Your task to perform on an android device: Clear the shopping cart on costco.com. Image 0: 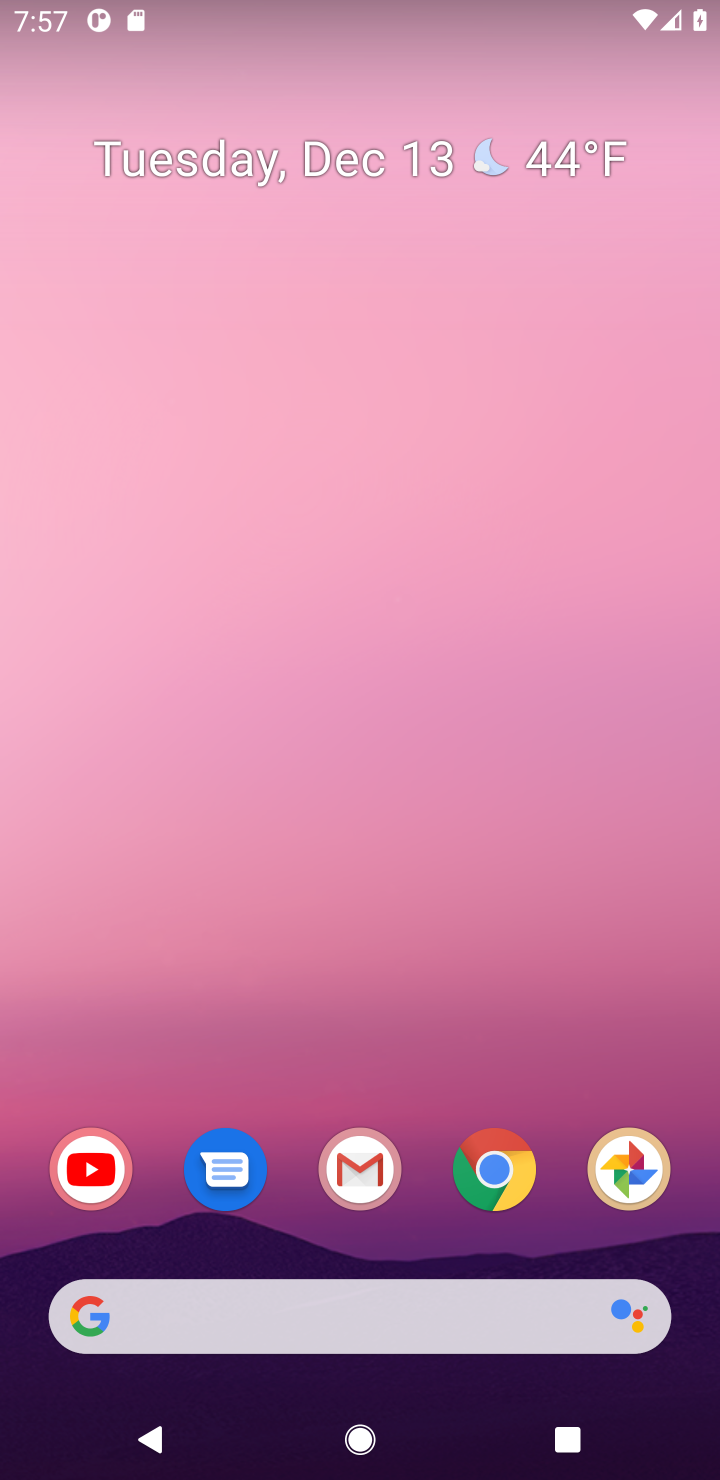
Step 0: click (457, 1148)
Your task to perform on an android device: Clear the shopping cart on costco.com. Image 1: 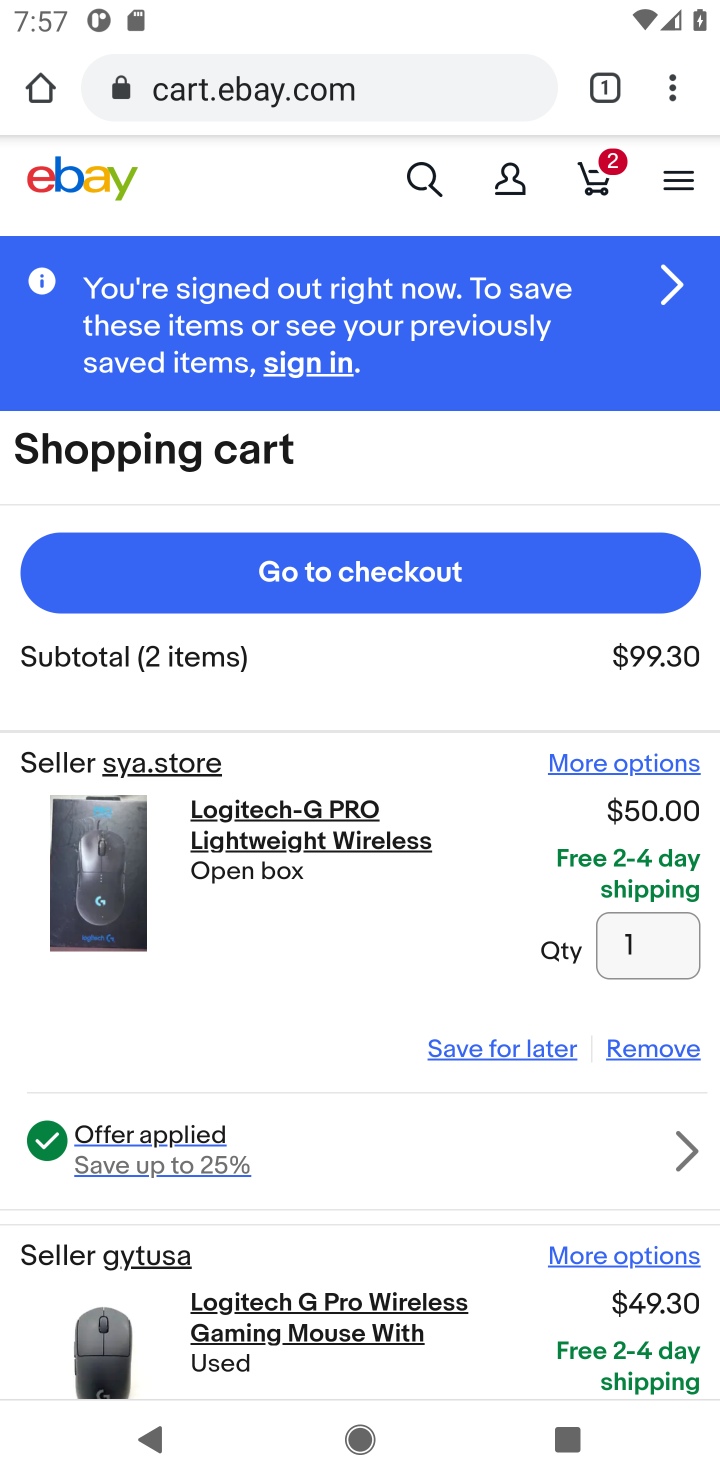
Step 1: click (328, 105)
Your task to perform on an android device: Clear the shopping cart on costco.com. Image 2: 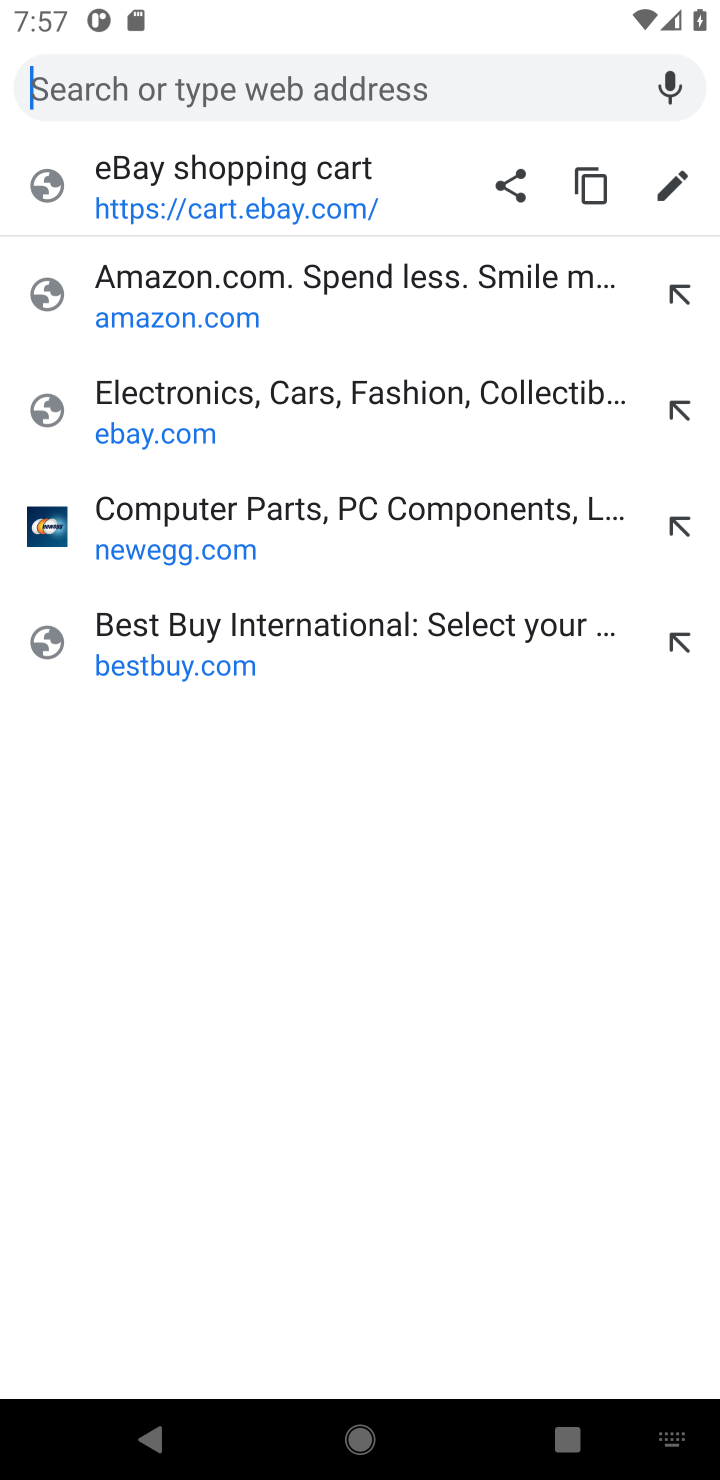
Step 2: type "costco"
Your task to perform on an android device: Clear the shopping cart on costco.com. Image 3: 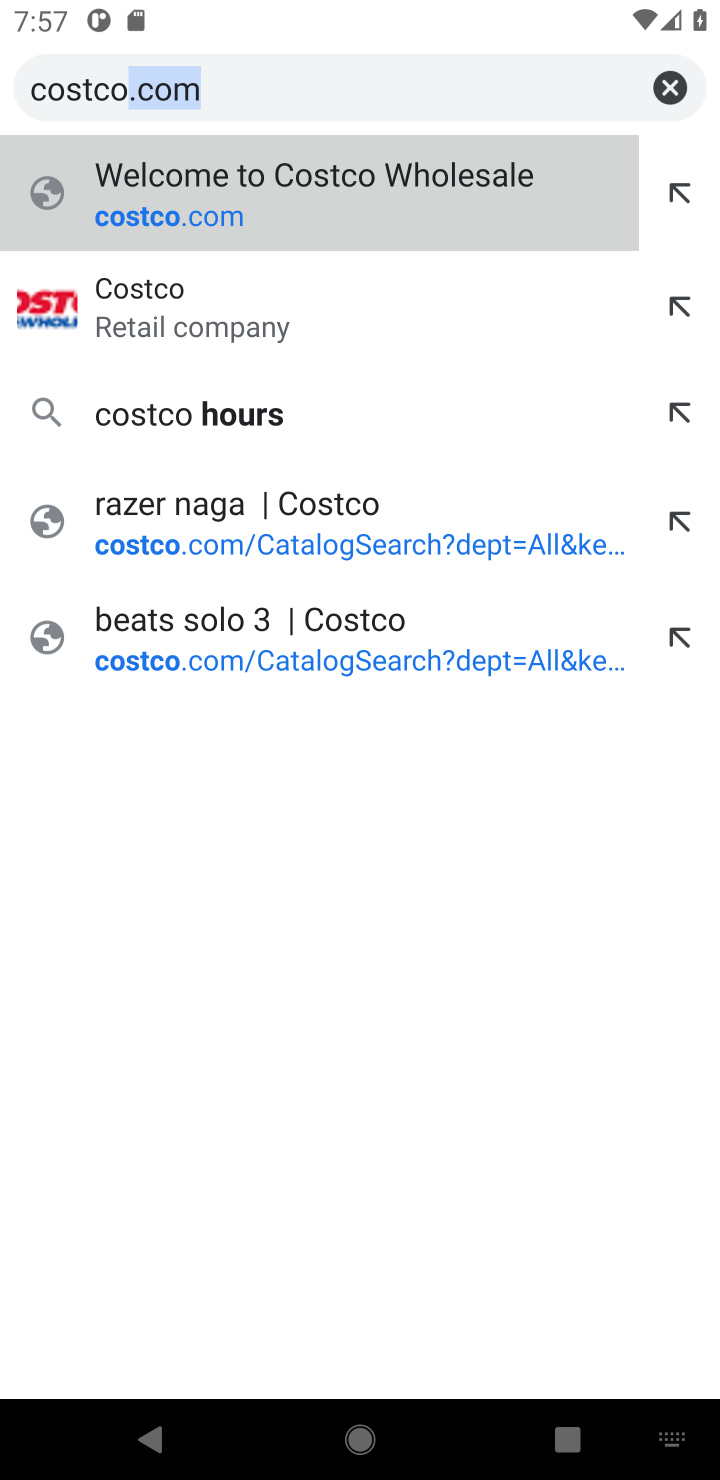
Step 3: click (353, 217)
Your task to perform on an android device: Clear the shopping cart on costco.com. Image 4: 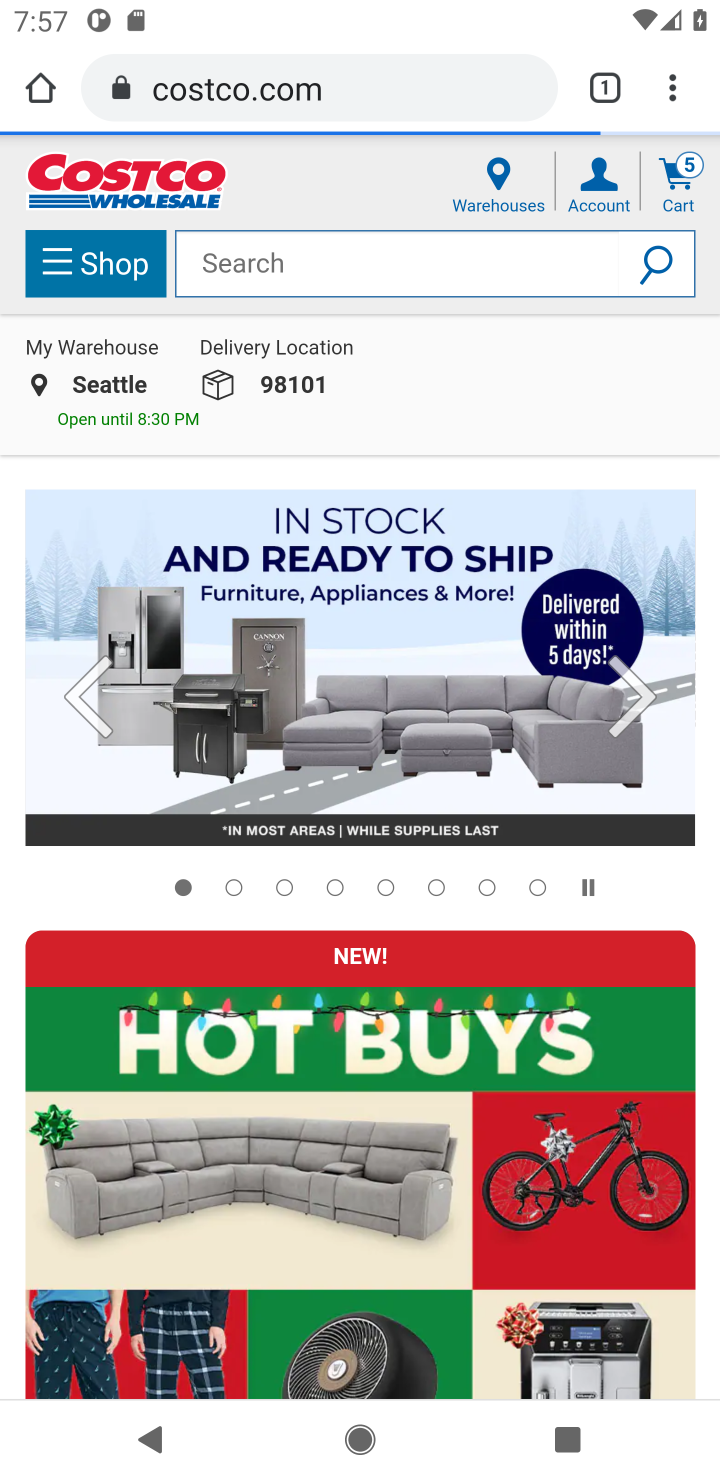
Step 4: click (321, 241)
Your task to perform on an android device: Clear the shopping cart on costco.com. Image 5: 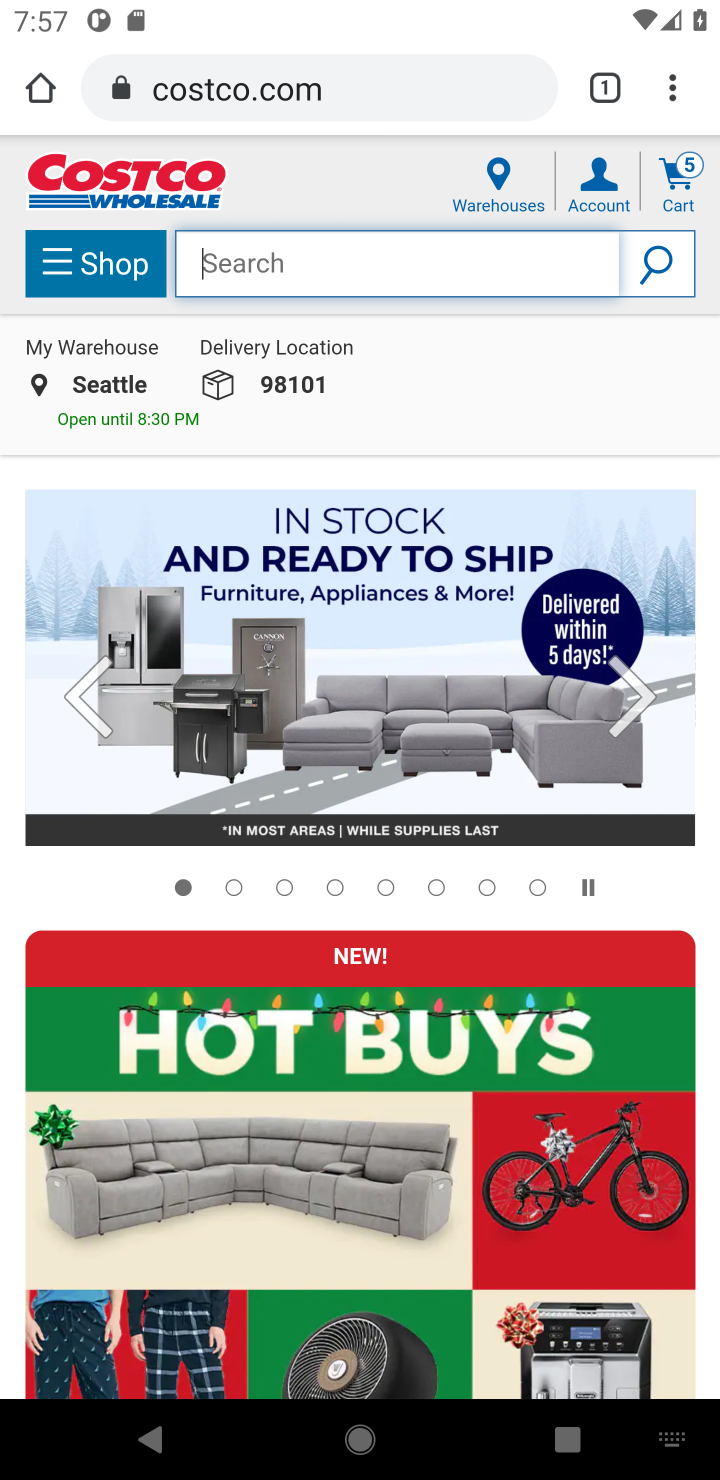
Step 5: click (665, 201)
Your task to perform on an android device: Clear the shopping cart on costco.com. Image 6: 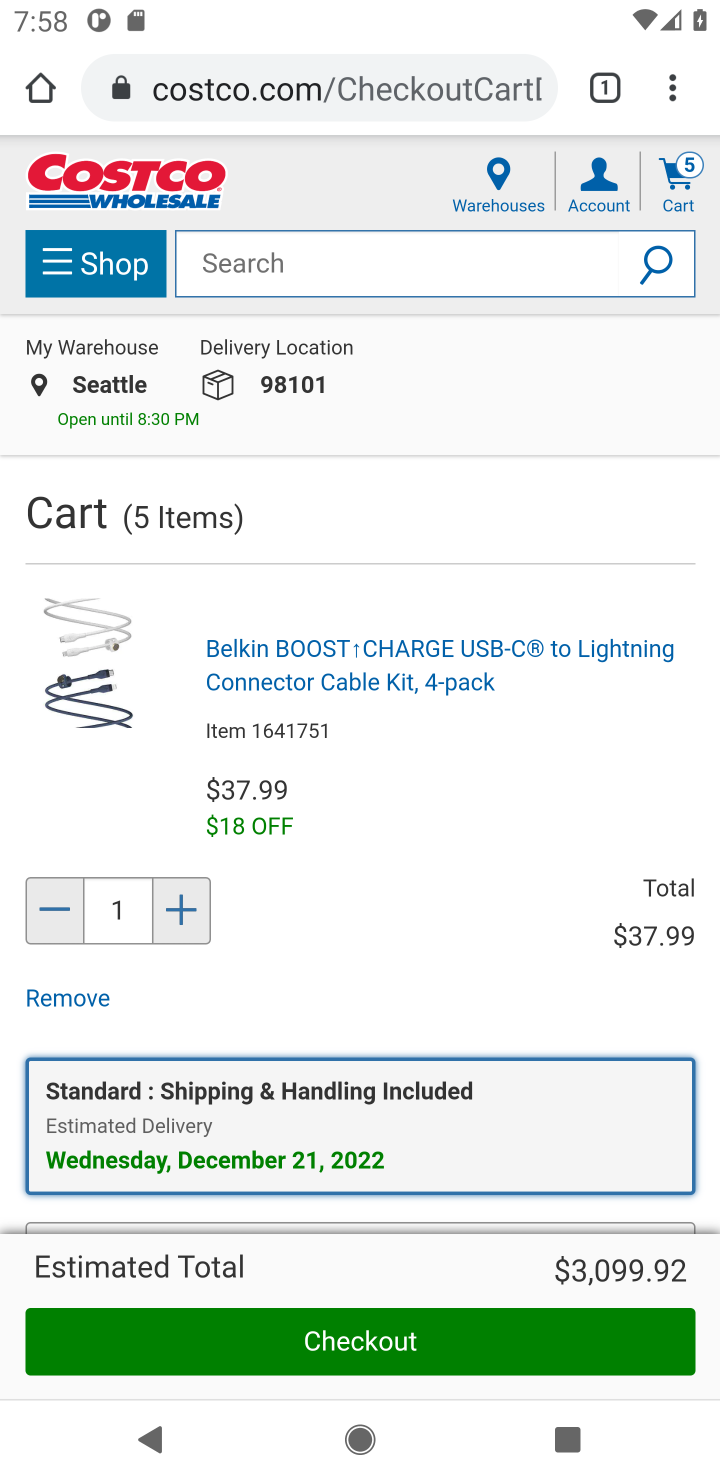
Step 6: drag from (323, 1202) to (332, 953)
Your task to perform on an android device: Clear the shopping cart on costco.com. Image 7: 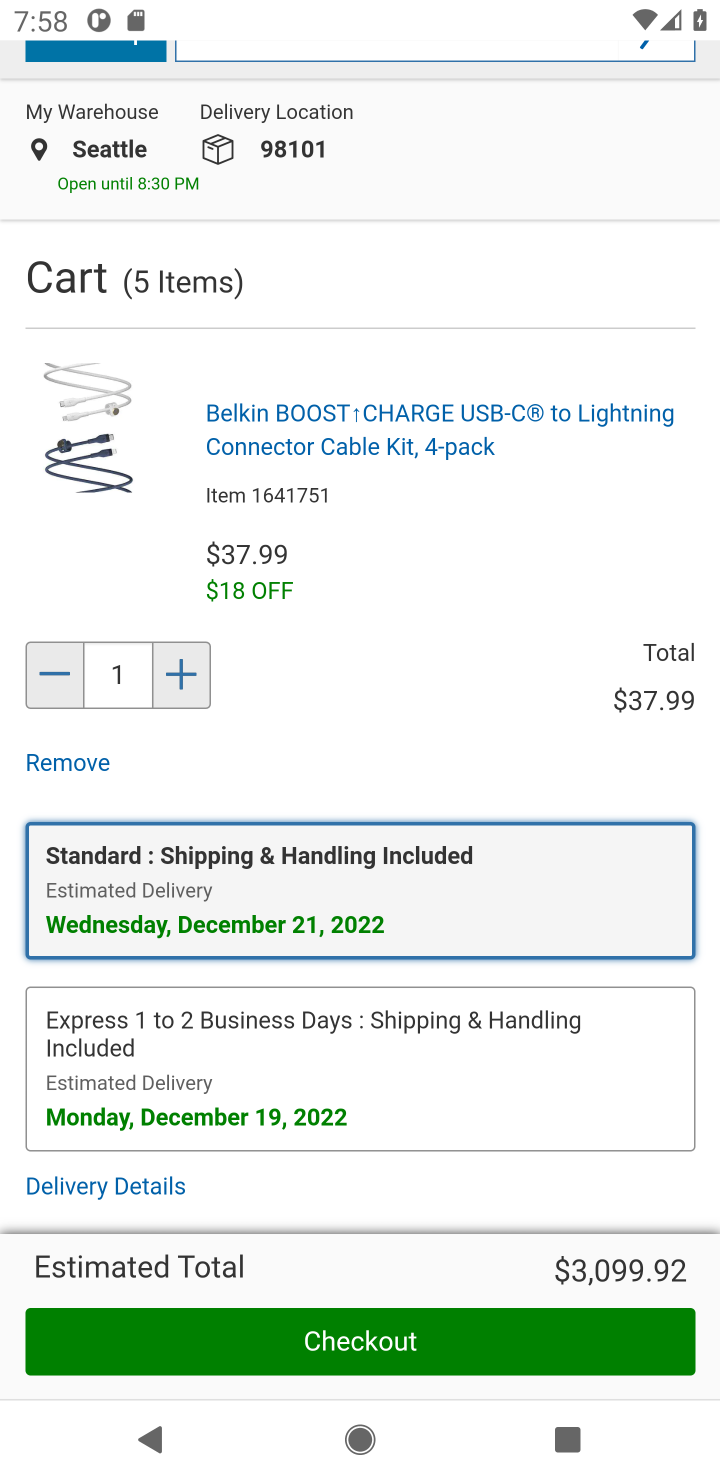
Step 7: click (89, 813)
Your task to perform on an android device: Clear the shopping cart on costco.com. Image 8: 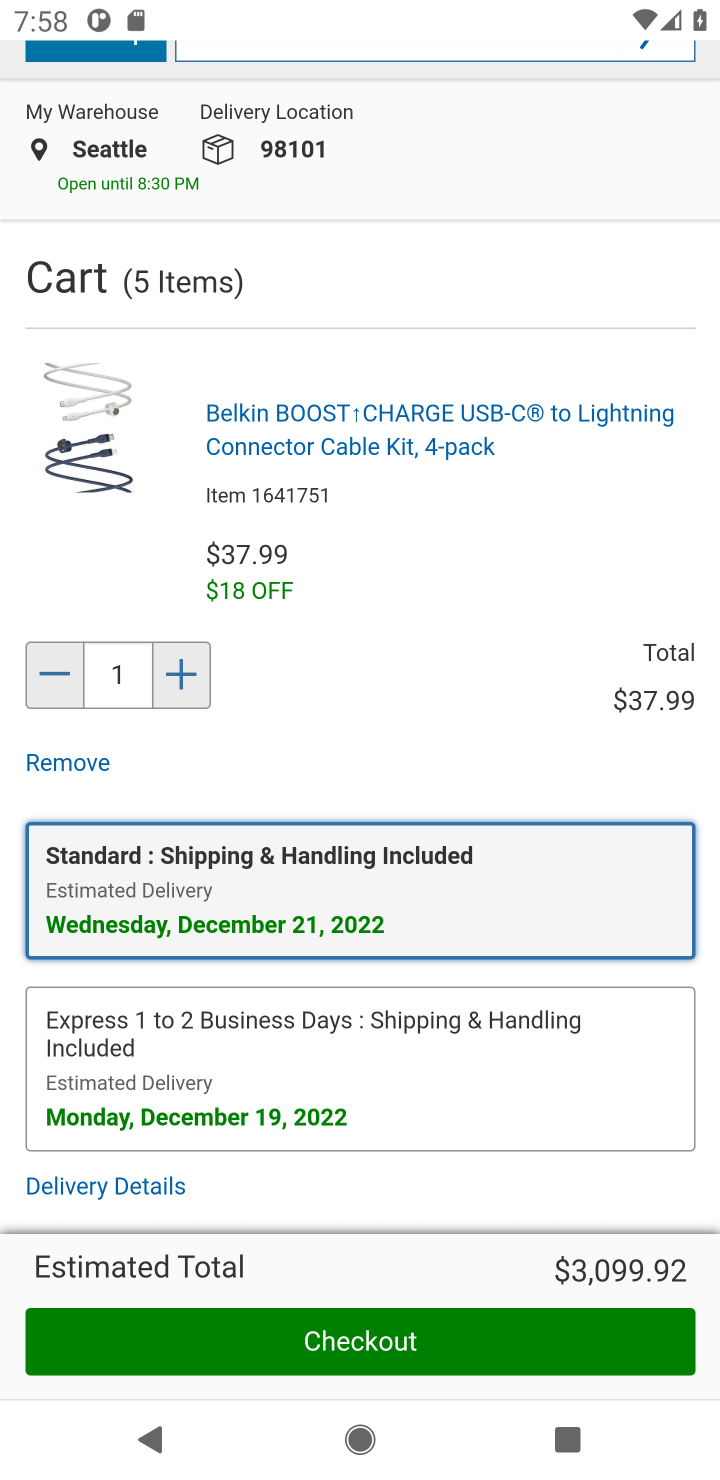
Step 8: click (72, 782)
Your task to perform on an android device: Clear the shopping cart on costco.com. Image 9: 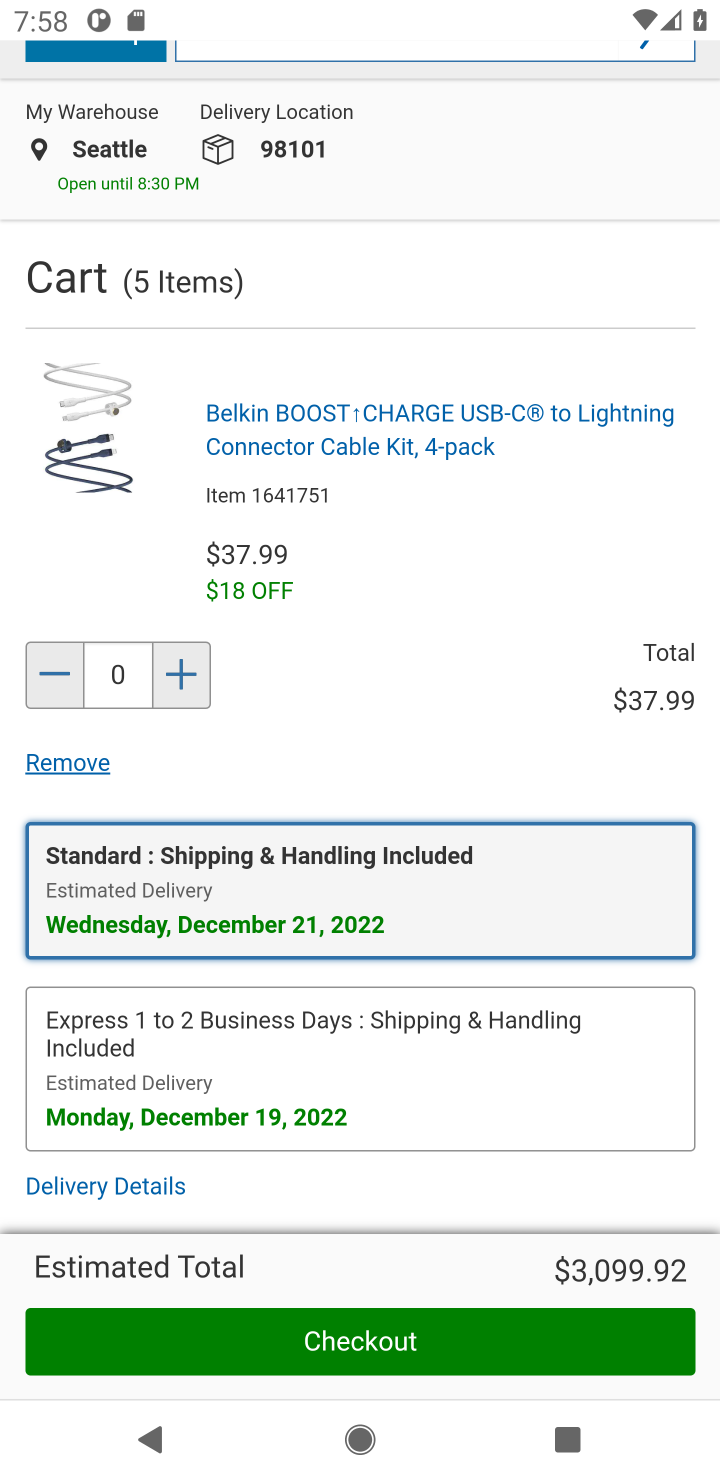
Step 9: click (66, 767)
Your task to perform on an android device: Clear the shopping cart on costco.com. Image 10: 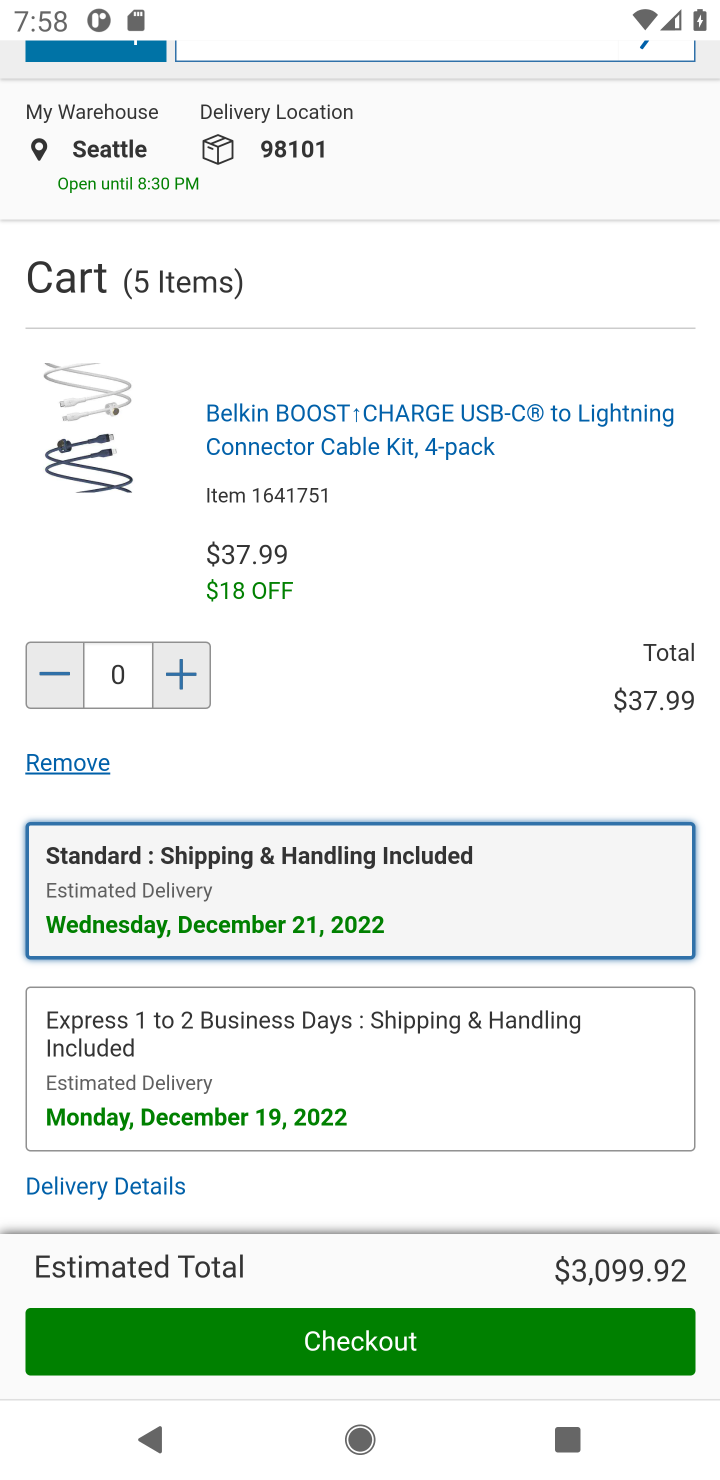
Step 10: click (66, 767)
Your task to perform on an android device: Clear the shopping cart on costco.com. Image 11: 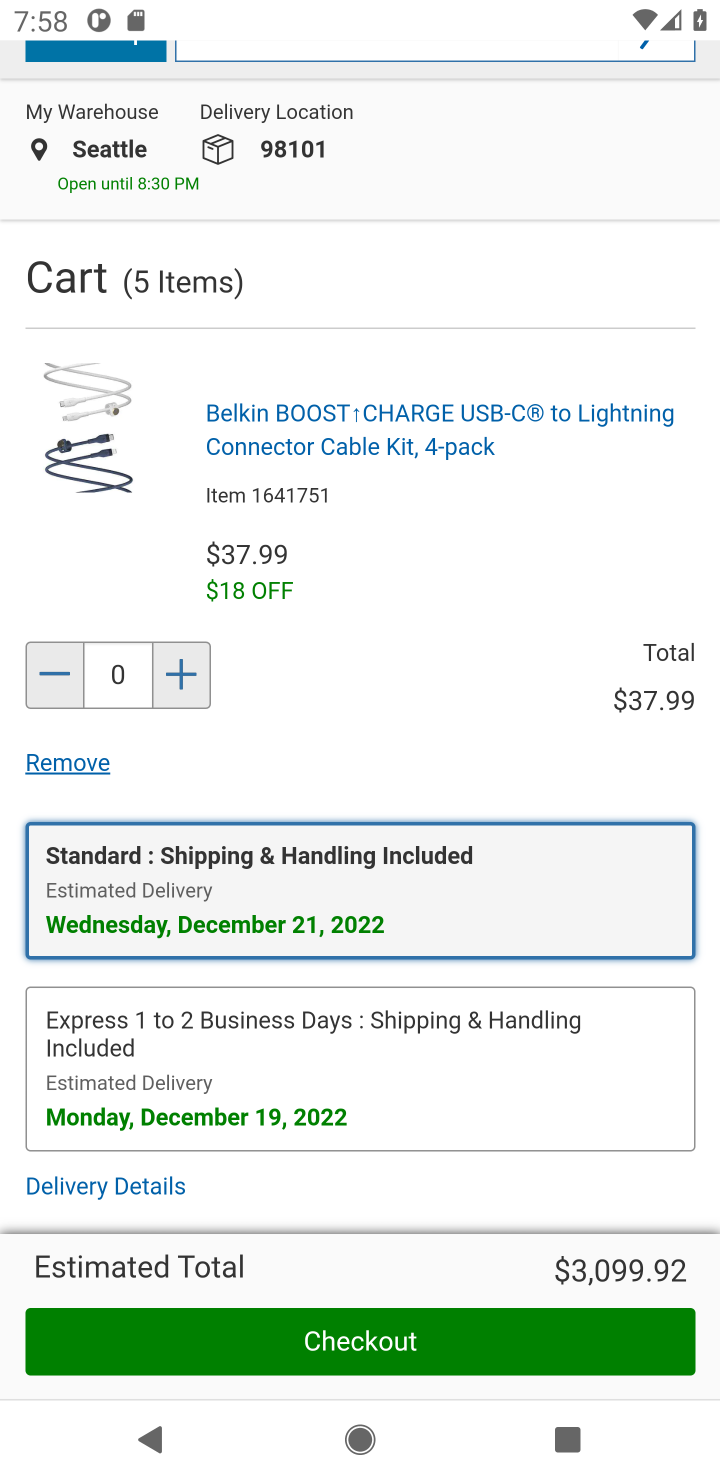
Step 11: click (66, 767)
Your task to perform on an android device: Clear the shopping cart on costco.com. Image 12: 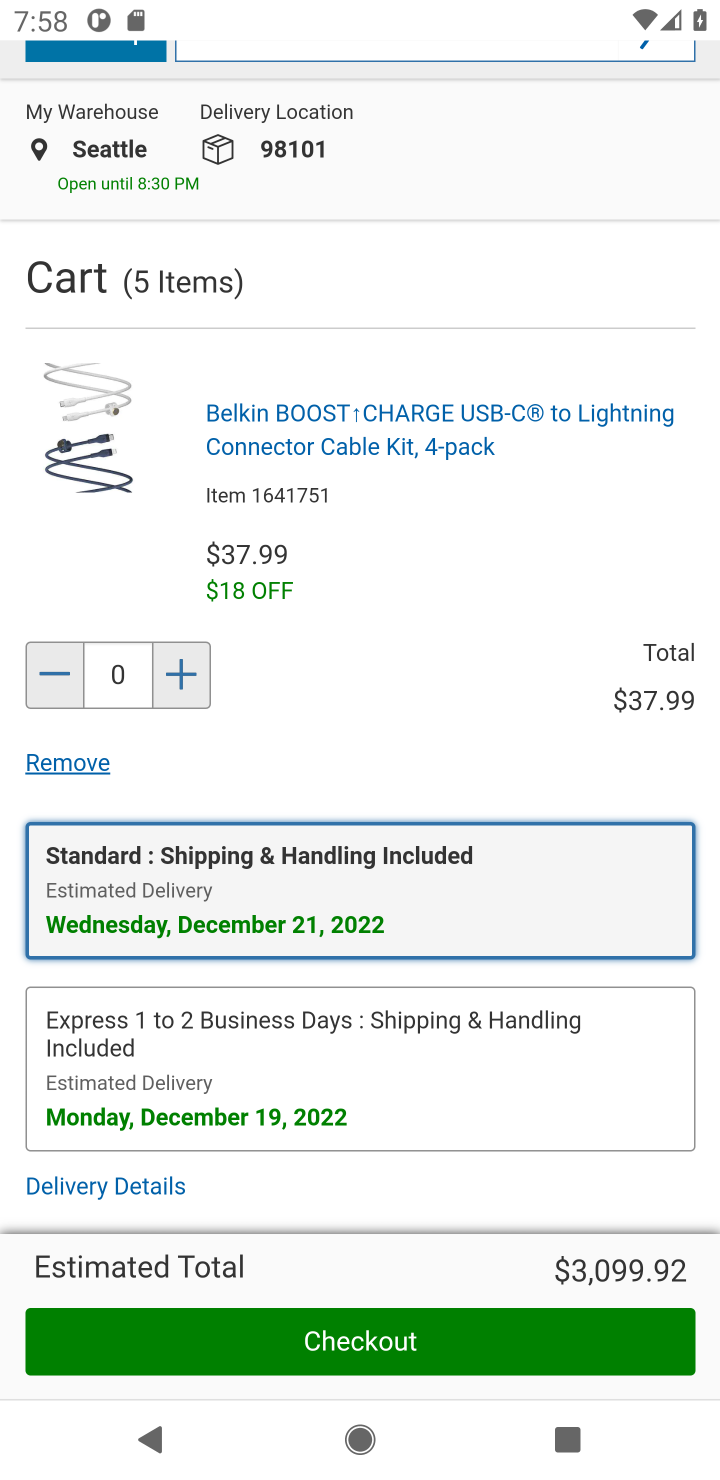
Step 12: task complete